Your task to perform on an android device: Open Chrome and go to the settings page Image 0: 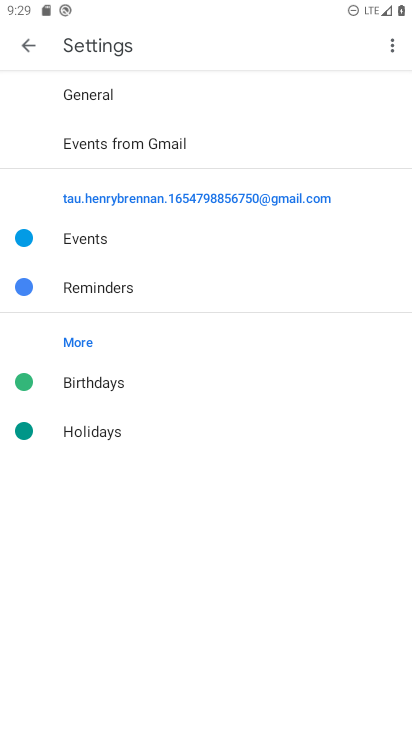
Step 0: press home button
Your task to perform on an android device: Open Chrome and go to the settings page Image 1: 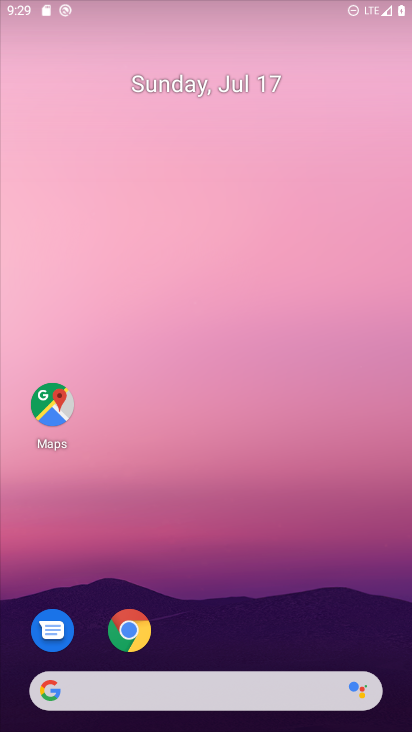
Step 1: drag from (377, 639) to (242, 3)
Your task to perform on an android device: Open Chrome and go to the settings page Image 2: 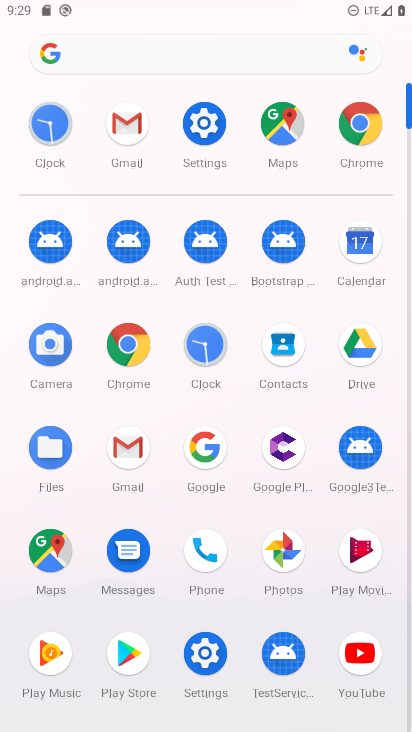
Step 2: click (365, 129)
Your task to perform on an android device: Open Chrome and go to the settings page Image 3: 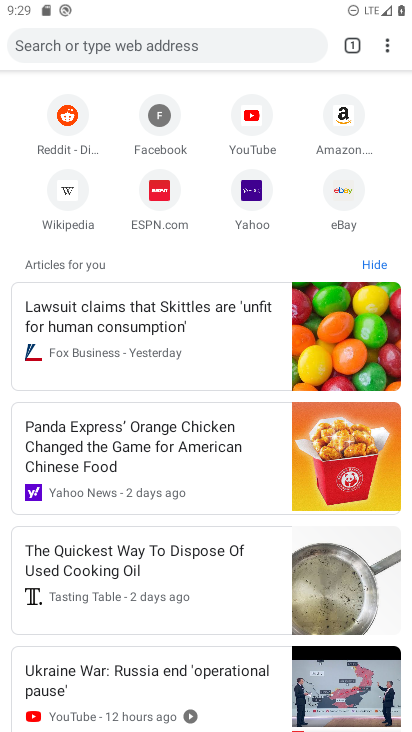
Step 3: click (387, 40)
Your task to perform on an android device: Open Chrome and go to the settings page Image 4: 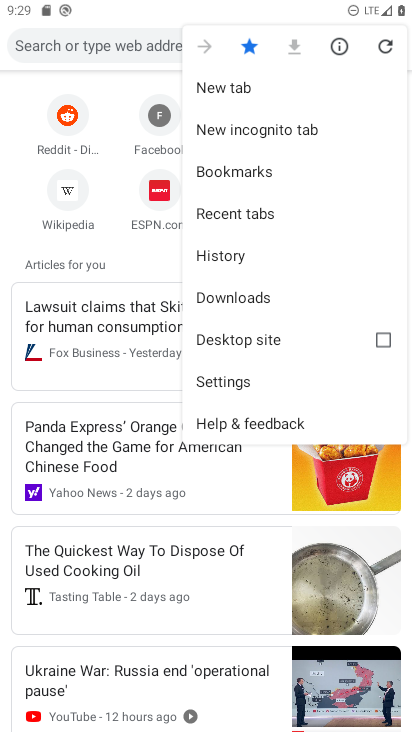
Step 4: click (238, 379)
Your task to perform on an android device: Open Chrome and go to the settings page Image 5: 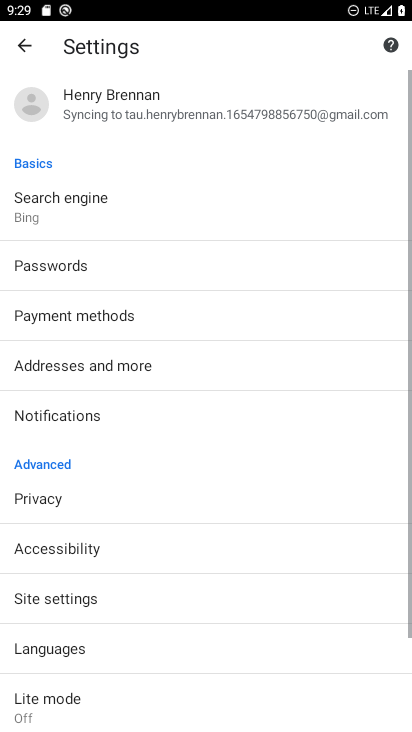
Step 5: task complete